Your task to perform on an android device: check data usage Image 0: 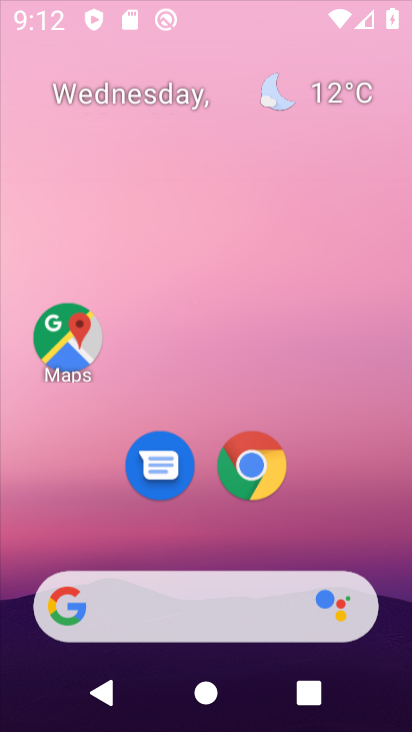
Step 0: press home button
Your task to perform on an android device: check data usage Image 1: 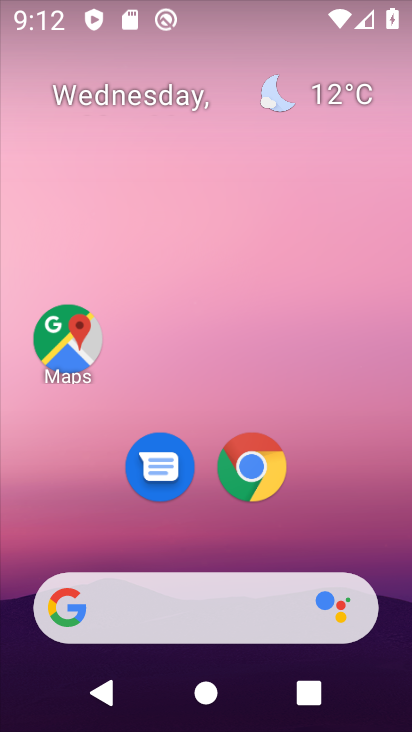
Step 1: drag from (348, 0) to (265, 728)
Your task to perform on an android device: check data usage Image 2: 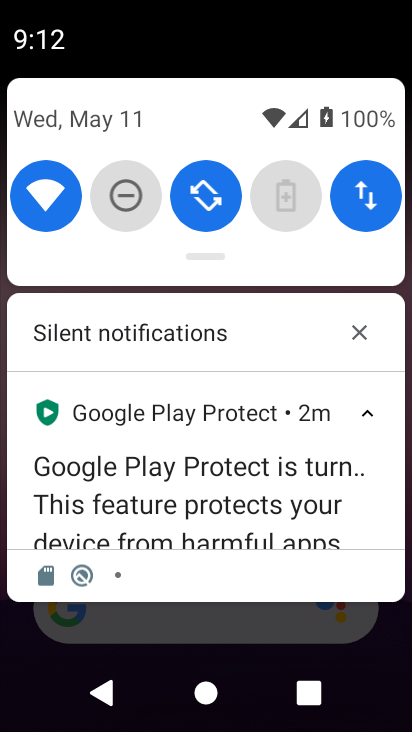
Step 2: click (350, 203)
Your task to perform on an android device: check data usage Image 3: 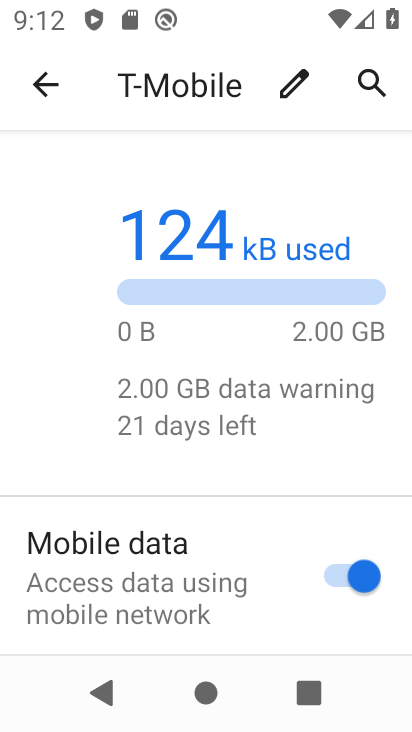
Step 3: task complete